Your task to perform on an android device: Open the web browser Image 0: 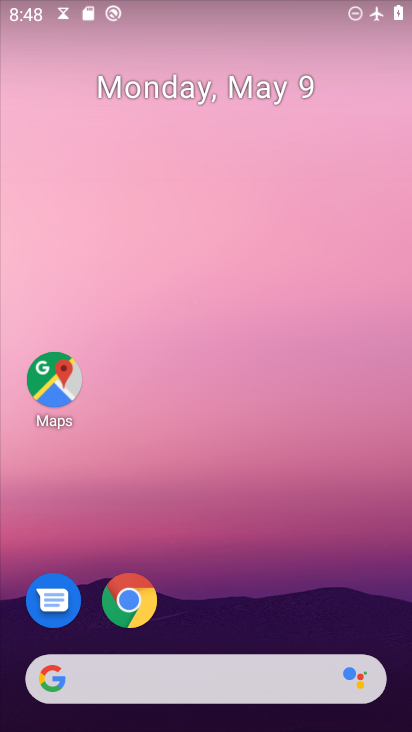
Step 0: drag from (239, 510) to (208, 46)
Your task to perform on an android device: Open the web browser Image 1: 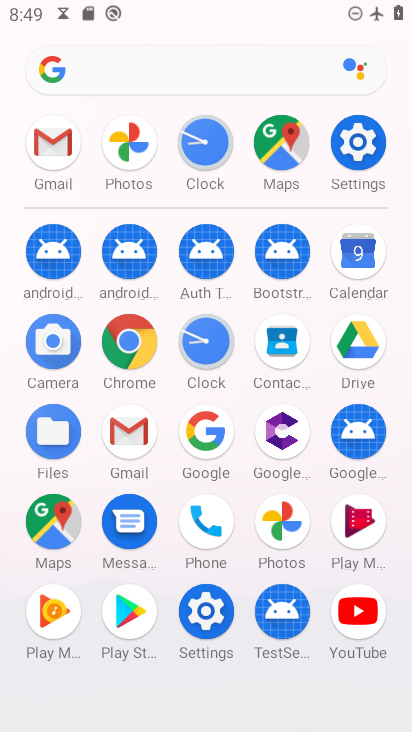
Step 1: click (128, 339)
Your task to perform on an android device: Open the web browser Image 2: 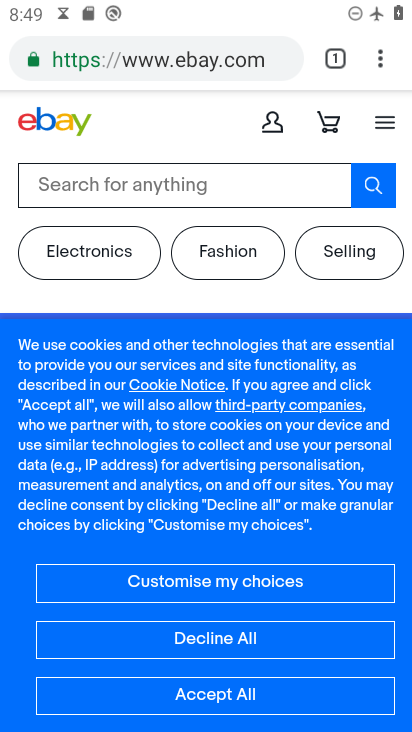
Step 2: task complete